Your task to perform on an android device: What is the recent news? Image 0: 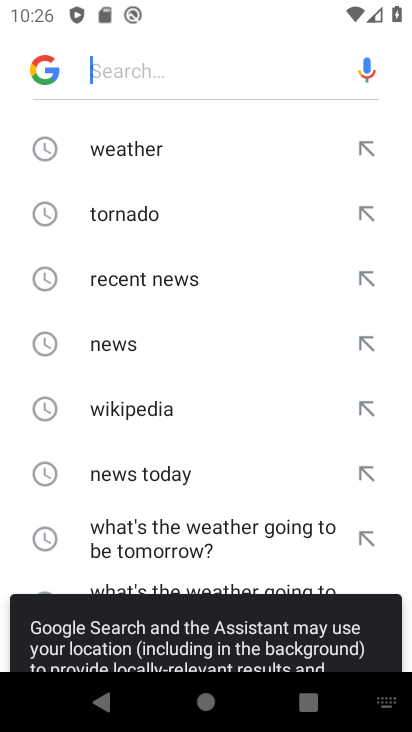
Step 0: press home button
Your task to perform on an android device: What is the recent news? Image 1: 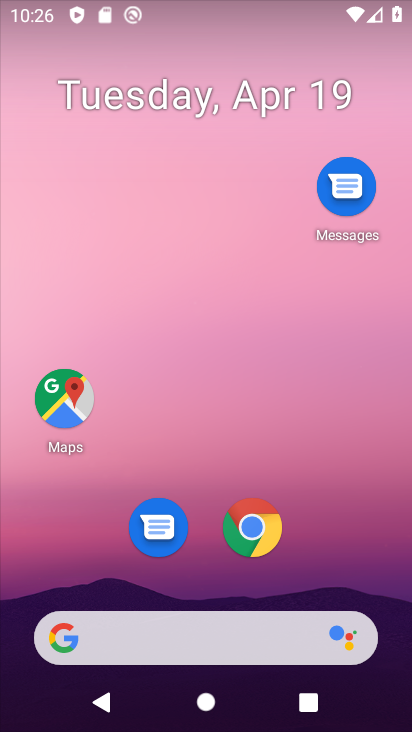
Step 1: task complete